Your task to perform on an android device: find which apps use the phone's location Image 0: 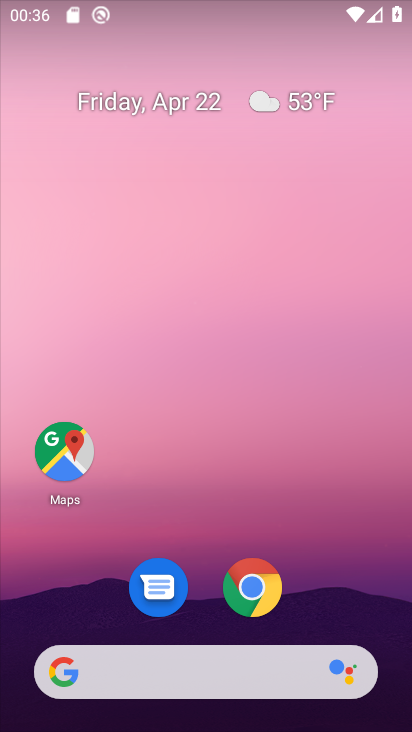
Step 0: drag from (318, 594) to (334, 250)
Your task to perform on an android device: find which apps use the phone's location Image 1: 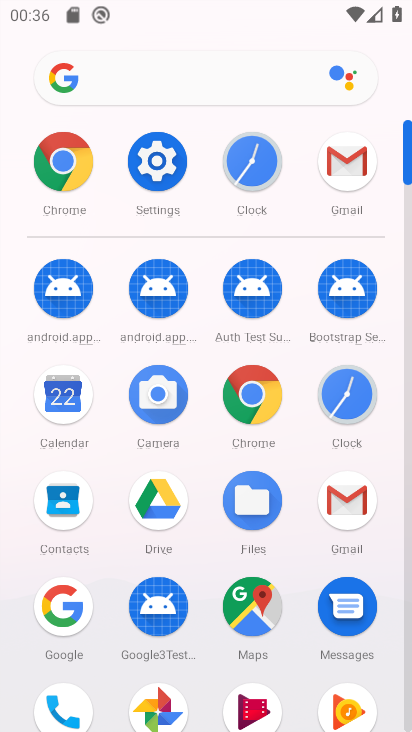
Step 1: click (149, 183)
Your task to perform on an android device: find which apps use the phone's location Image 2: 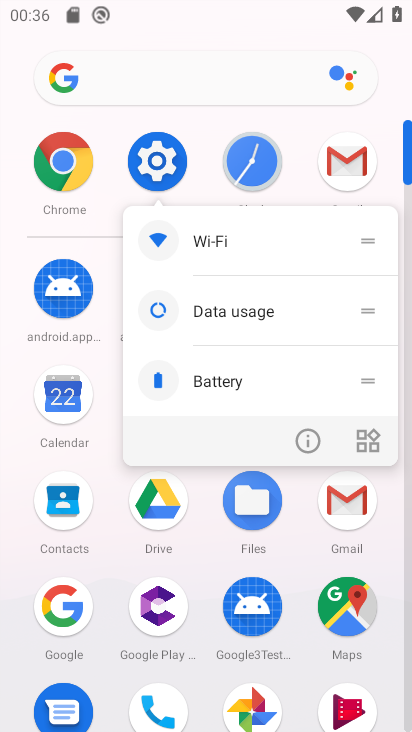
Step 2: click (169, 164)
Your task to perform on an android device: find which apps use the phone's location Image 3: 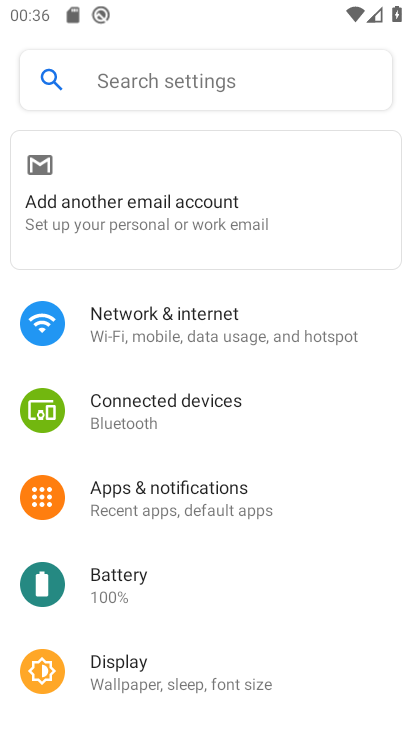
Step 3: drag from (280, 591) to (280, 422)
Your task to perform on an android device: find which apps use the phone's location Image 4: 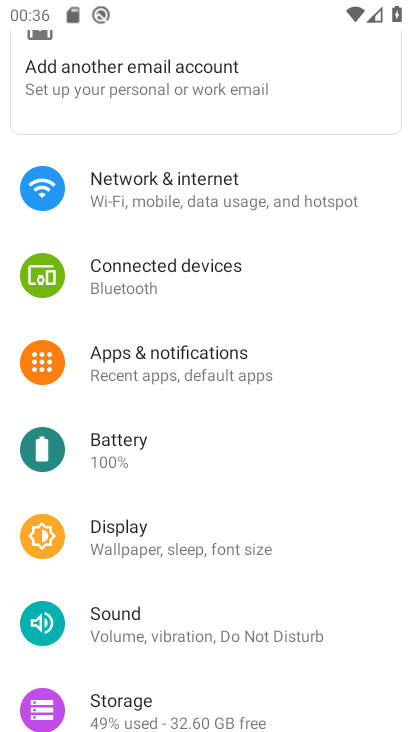
Step 4: drag from (247, 670) to (278, 282)
Your task to perform on an android device: find which apps use the phone's location Image 5: 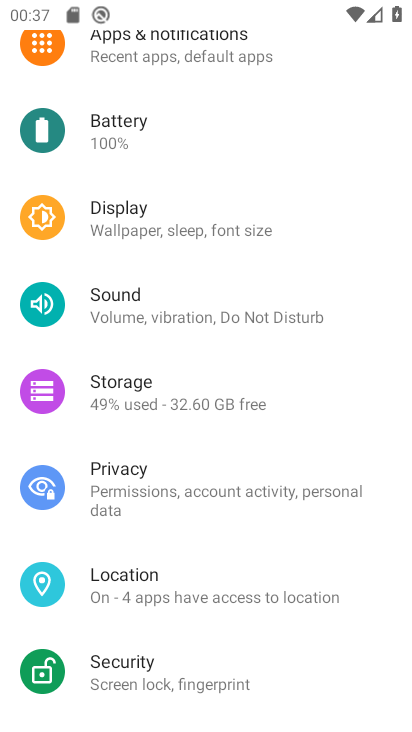
Step 5: click (224, 605)
Your task to perform on an android device: find which apps use the phone's location Image 6: 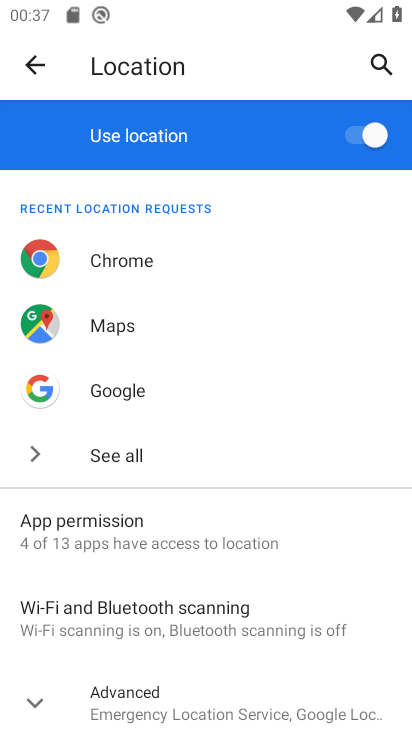
Step 6: click (99, 260)
Your task to perform on an android device: find which apps use the phone's location Image 7: 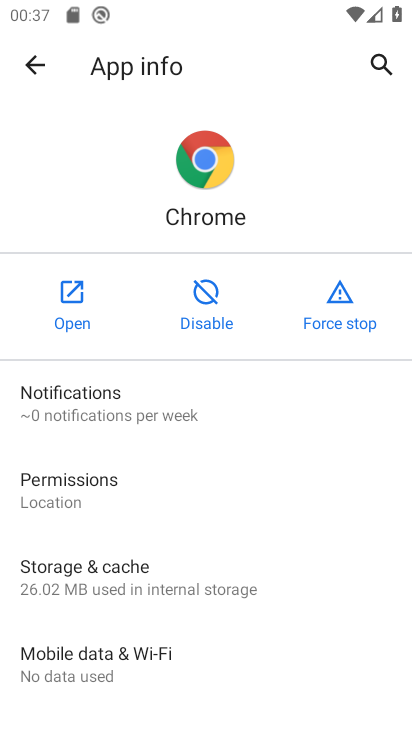
Step 7: task complete